Your task to perform on an android device: open chrome privacy settings Image 0: 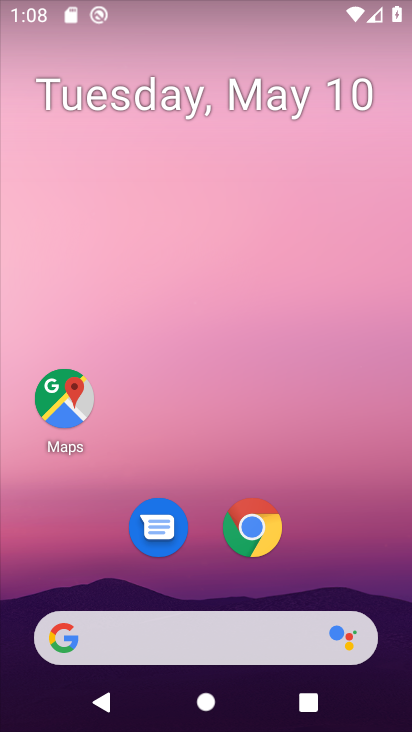
Step 0: click (240, 542)
Your task to perform on an android device: open chrome privacy settings Image 1: 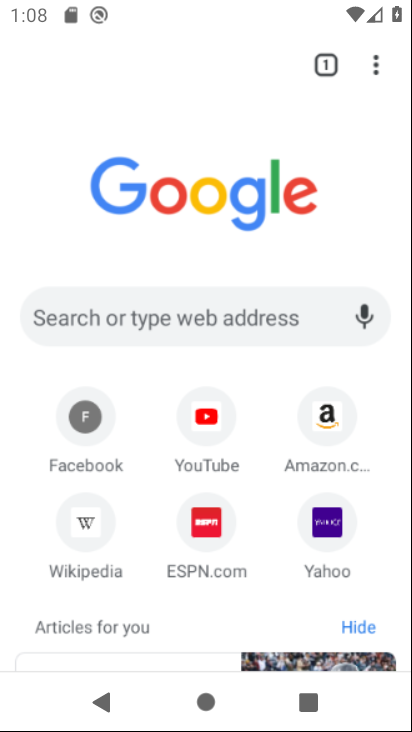
Step 1: click (372, 74)
Your task to perform on an android device: open chrome privacy settings Image 2: 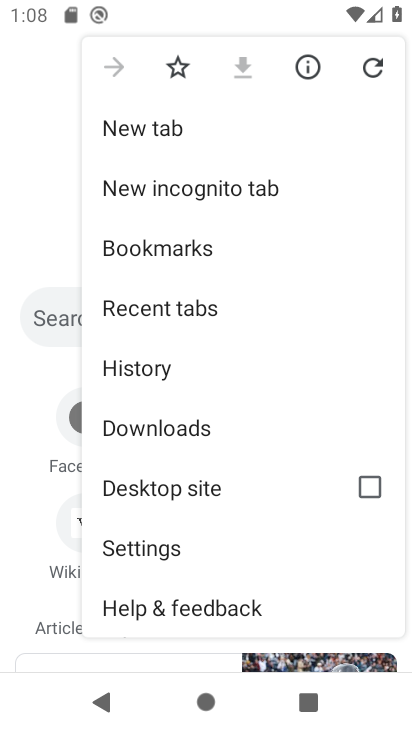
Step 2: click (150, 559)
Your task to perform on an android device: open chrome privacy settings Image 3: 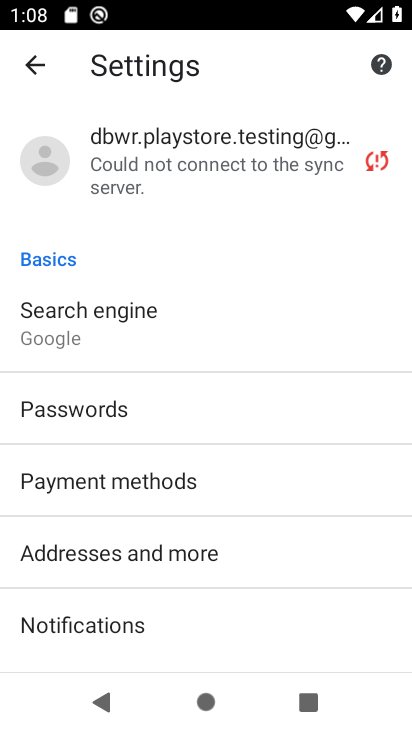
Step 3: drag from (143, 570) to (214, 167)
Your task to perform on an android device: open chrome privacy settings Image 4: 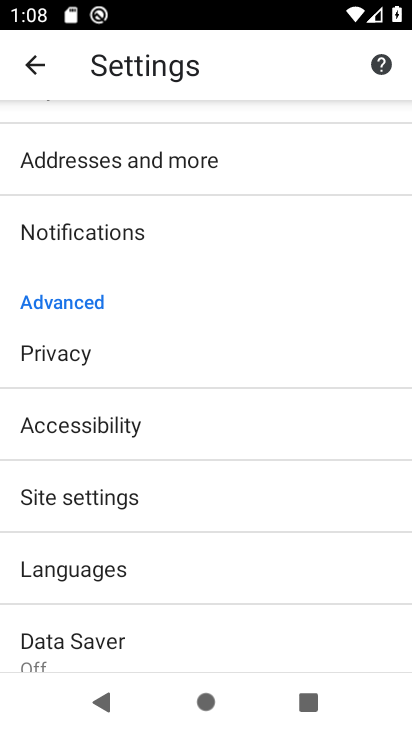
Step 4: click (98, 348)
Your task to perform on an android device: open chrome privacy settings Image 5: 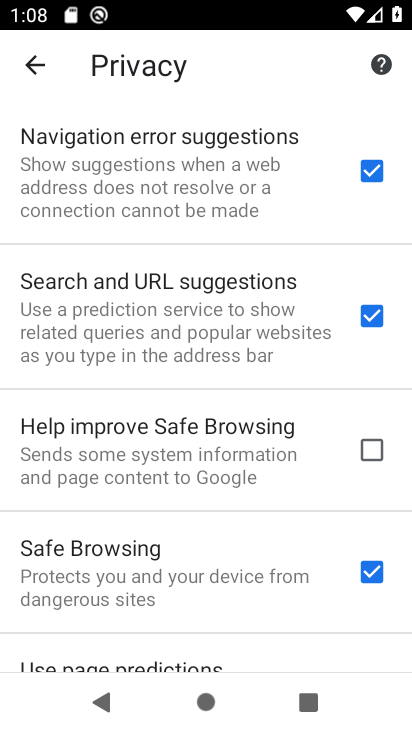
Step 5: task complete